Your task to perform on an android device: Search for Italian restaurants on Maps Image 0: 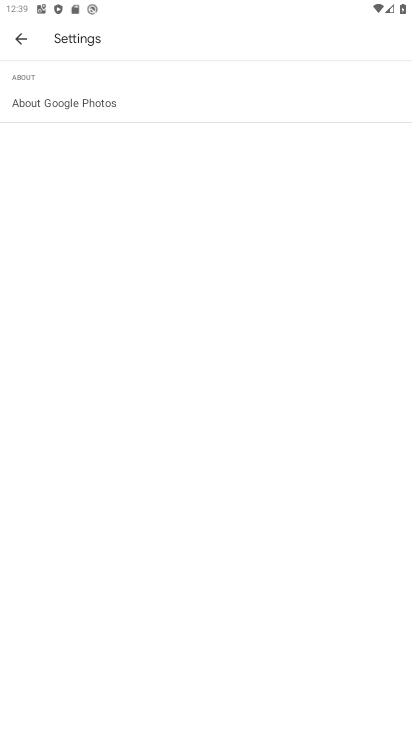
Step 0: press home button
Your task to perform on an android device: Search for Italian restaurants on Maps Image 1: 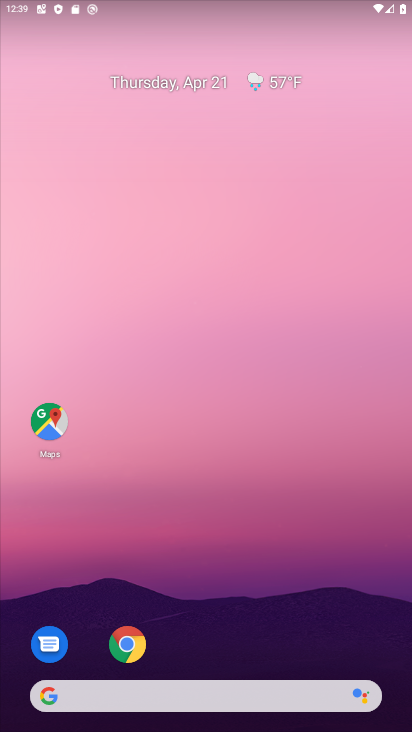
Step 1: drag from (194, 673) to (146, 26)
Your task to perform on an android device: Search for Italian restaurants on Maps Image 2: 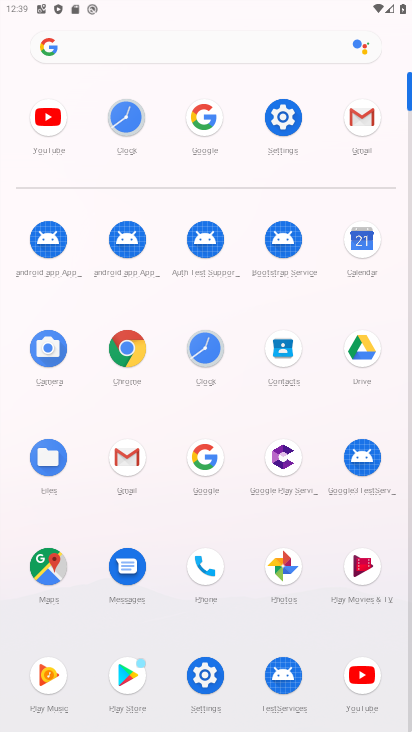
Step 2: click (49, 567)
Your task to perform on an android device: Search for Italian restaurants on Maps Image 3: 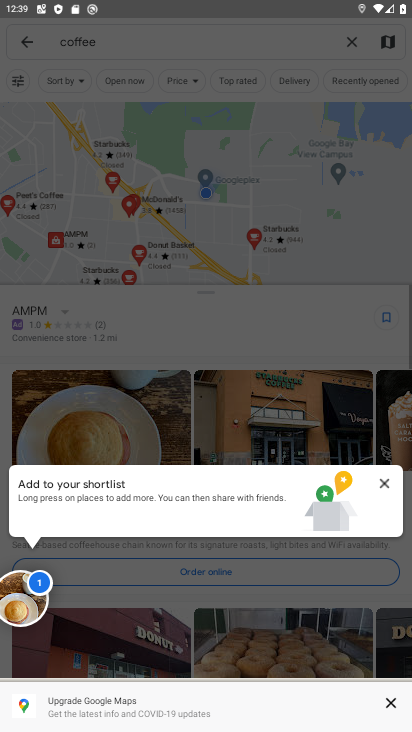
Step 3: click (384, 483)
Your task to perform on an android device: Search for Italian restaurants on Maps Image 4: 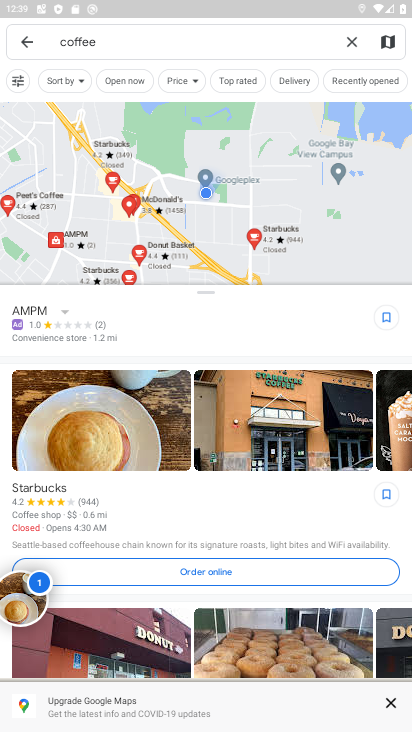
Step 4: click (166, 56)
Your task to perform on an android device: Search for Italian restaurants on Maps Image 5: 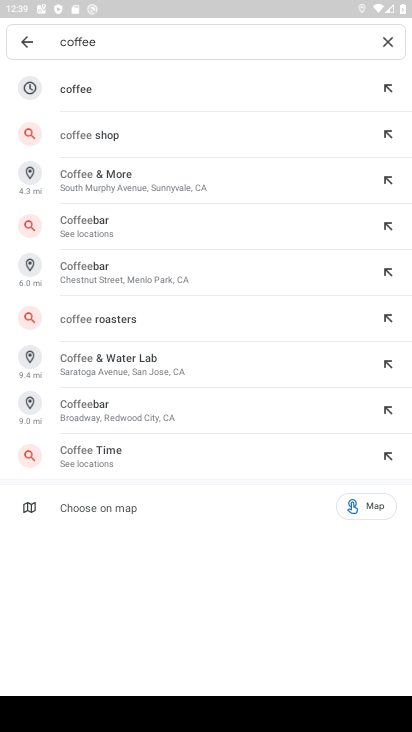
Step 5: click (390, 37)
Your task to perform on an android device: Search for Italian restaurants on Maps Image 6: 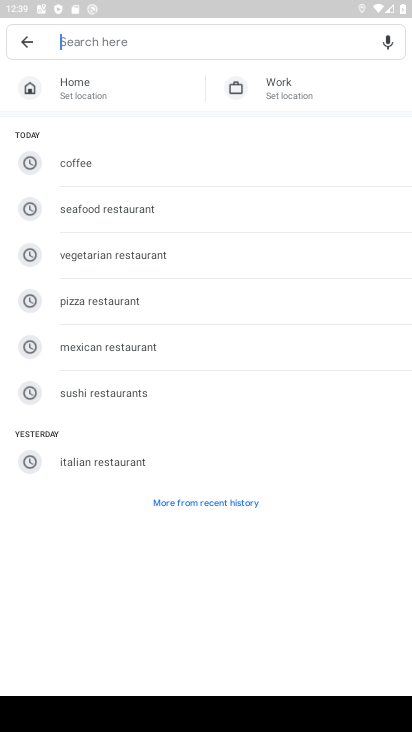
Step 6: click (149, 461)
Your task to perform on an android device: Search for Italian restaurants on Maps Image 7: 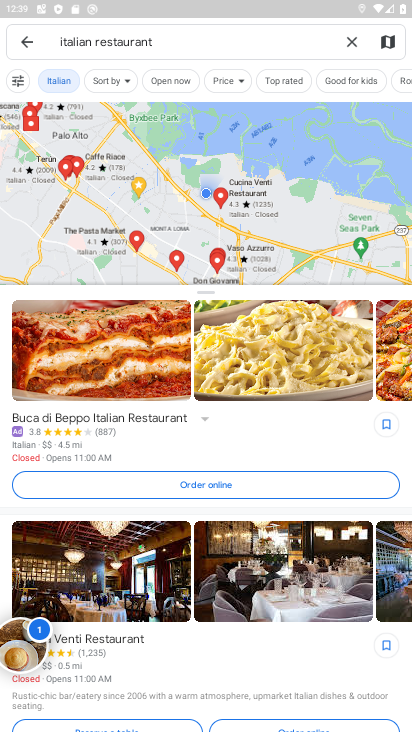
Step 7: task complete